Your task to perform on an android device: change notification settings in the gmail app Image 0: 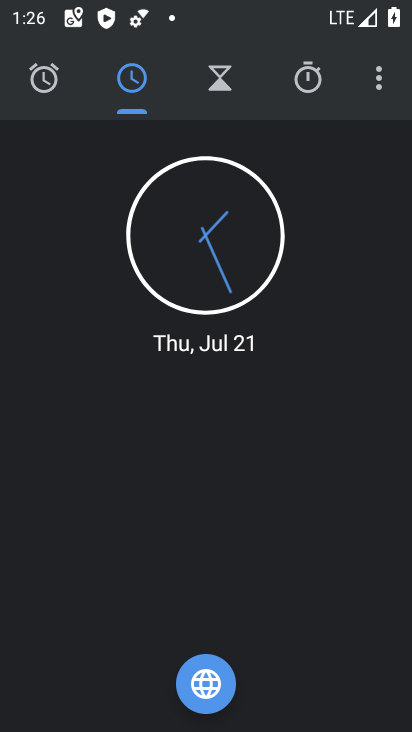
Step 0: press home button
Your task to perform on an android device: change notification settings in the gmail app Image 1: 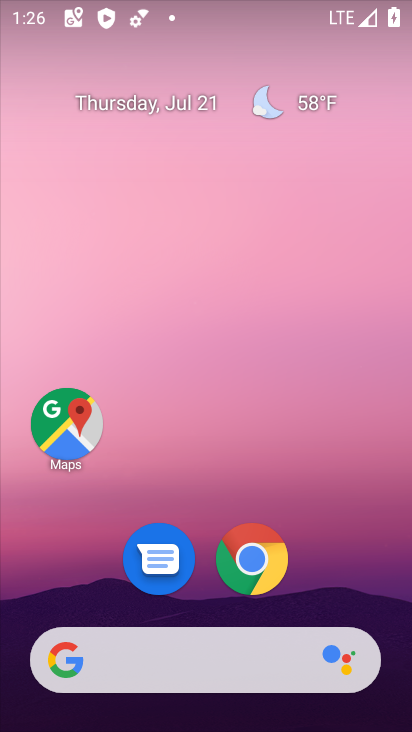
Step 1: drag from (361, 548) to (376, 131)
Your task to perform on an android device: change notification settings in the gmail app Image 2: 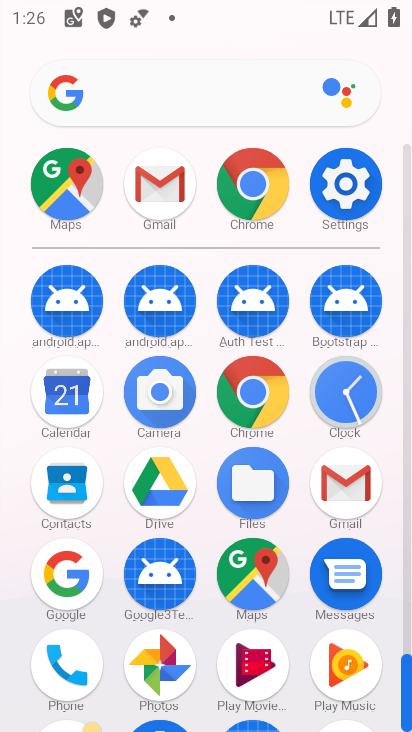
Step 2: click (344, 485)
Your task to perform on an android device: change notification settings in the gmail app Image 3: 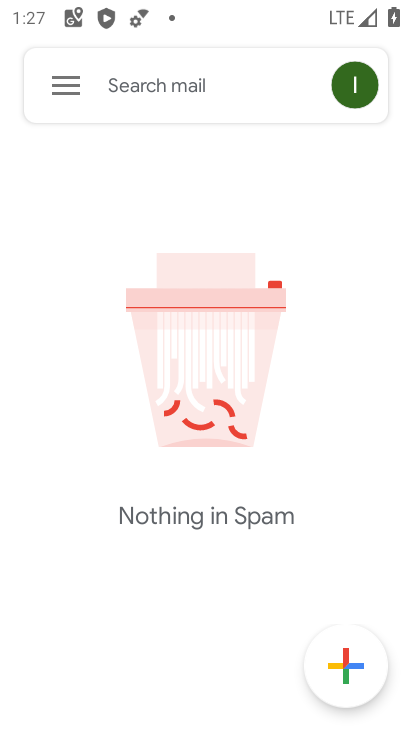
Step 3: click (69, 79)
Your task to perform on an android device: change notification settings in the gmail app Image 4: 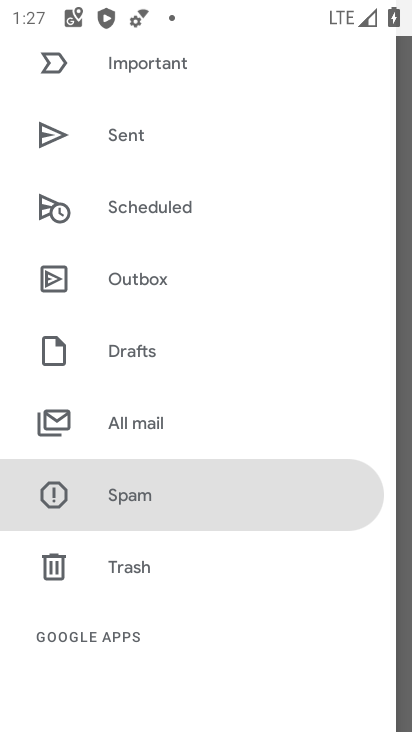
Step 4: drag from (264, 552) to (272, 459)
Your task to perform on an android device: change notification settings in the gmail app Image 5: 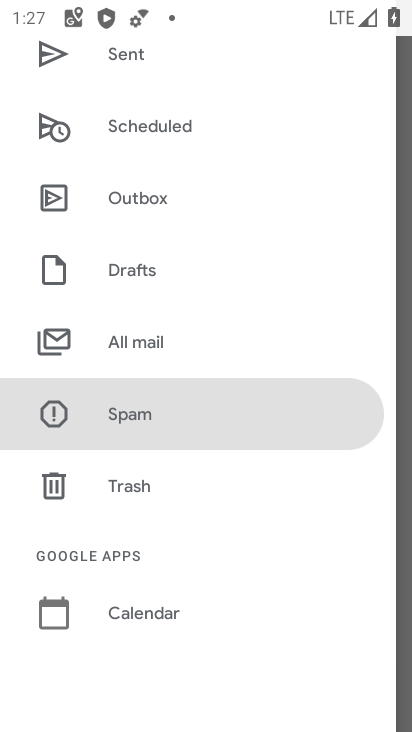
Step 5: drag from (270, 553) to (282, 479)
Your task to perform on an android device: change notification settings in the gmail app Image 6: 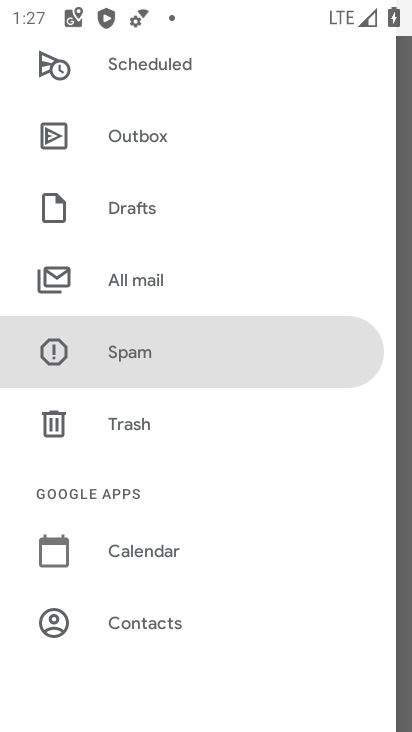
Step 6: drag from (290, 565) to (287, 423)
Your task to perform on an android device: change notification settings in the gmail app Image 7: 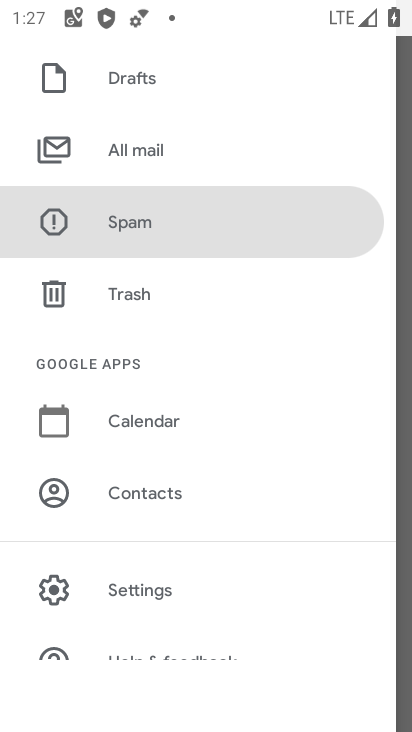
Step 7: drag from (274, 561) to (279, 436)
Your task to perform on an android device: change notification settings in the gmail app Image 8: 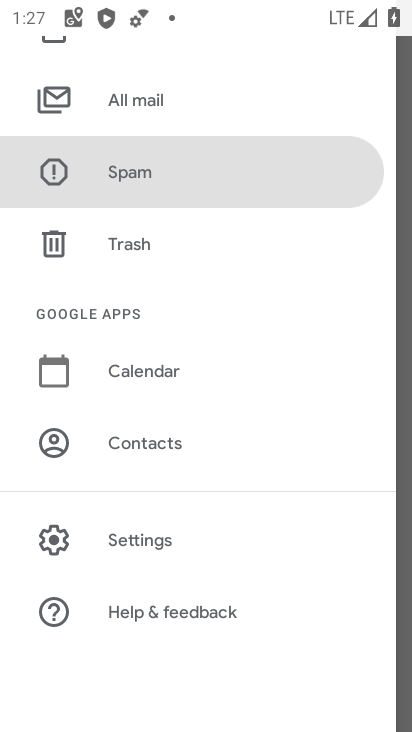
Step 8: click (209, 536)
Your task to perform on an android device: change notification settings in the gmail app Image 9: 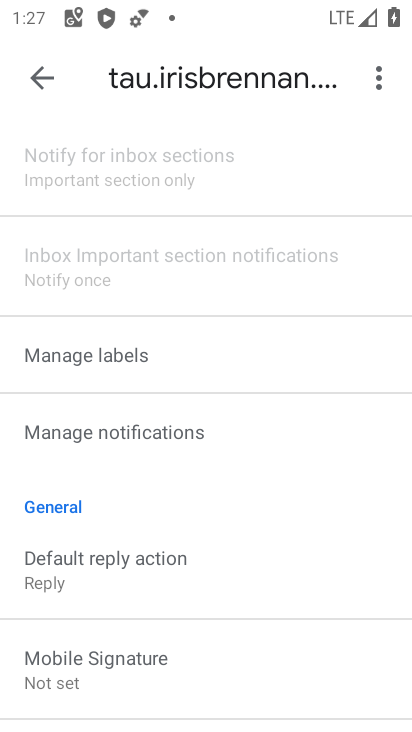
Step 9: drag from (322, 472) to (331, 394)
Your task to perform on an android device: change notification settings in the gmail app Image 10: 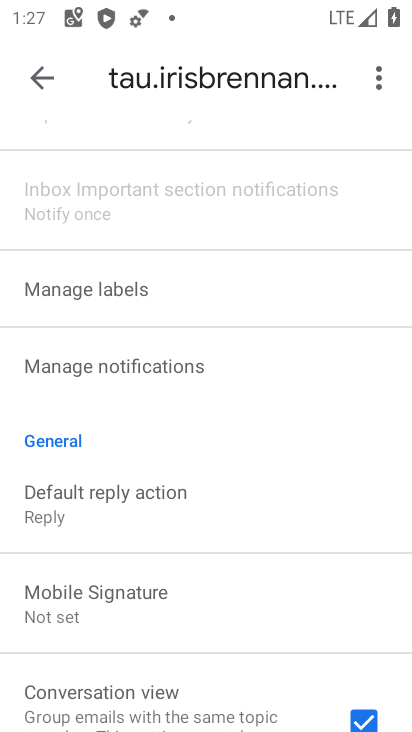
Step 10: drag from (340, 224) to (343, 332)
Your task to perform on an android device: change notification settings in the gmail app Image 11: 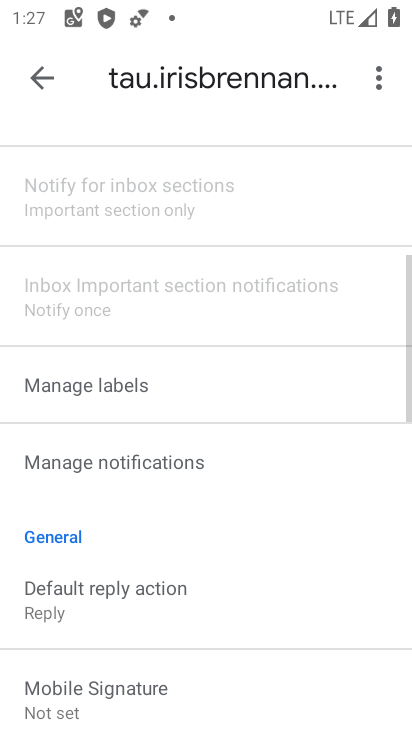
Step 11: drag from (354, 194) to (345, 291)
Your task to perform on an android device: change notification settings in the gmail app Image 12: 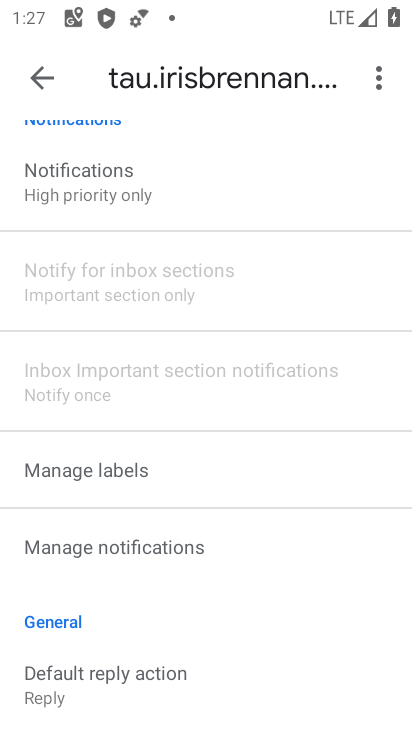
Step 12: drag from (320, 182) to (327, 337)
Your task to perform on an android device: change notification settings in the gmail app Image 13: 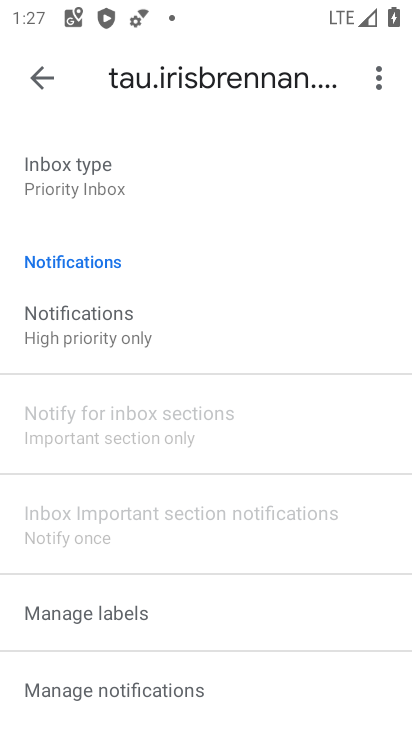
Step 13: drag from (325, 181) to (326, 318)
Your task to perform on an android device: change notification settings in the gmail app Image 14: 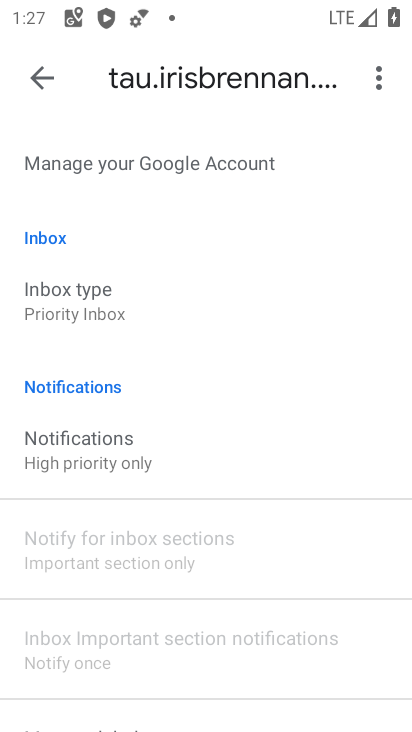
Step 14: click (170, 443)
Your task to perform on an android device: change notification settings in the gmail app Image 15: 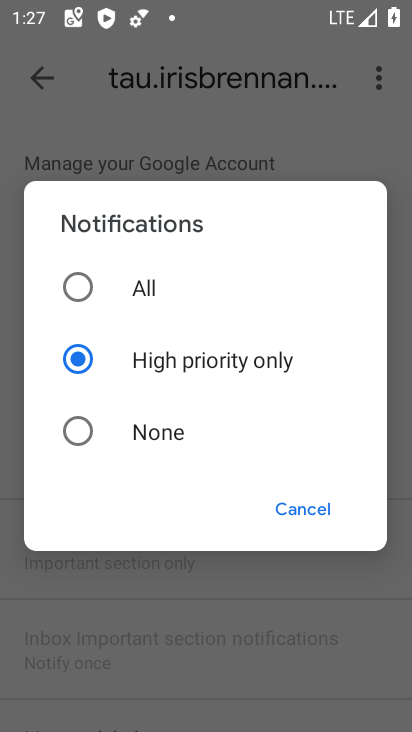
Step 15: click (173, 299)
Your task to perform on an android device: change notification settings in the gmail app Image 16: 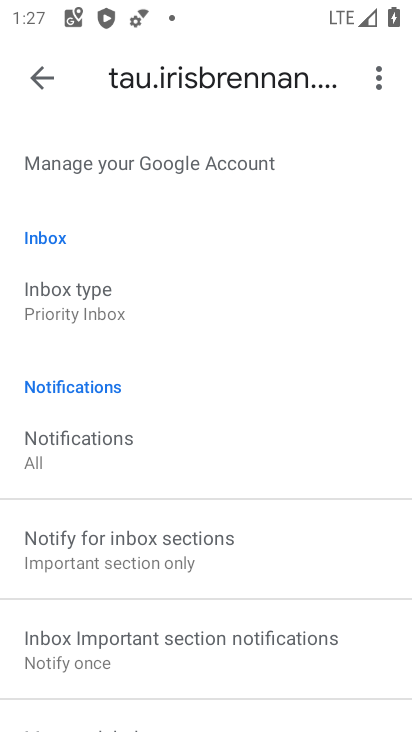
Step 16: task complete